Your task to perform on an android device: turn on notifications settings in the gmail app Image 0: 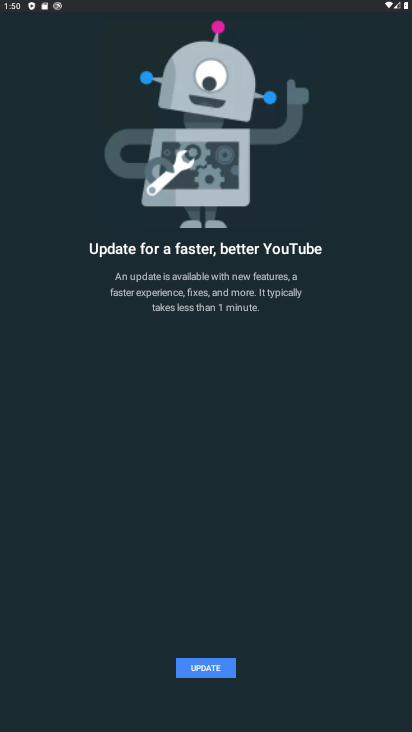
Step 0: press home button
Your task to perform on an android device: turn on notifications settings in the gmail app Image 1: 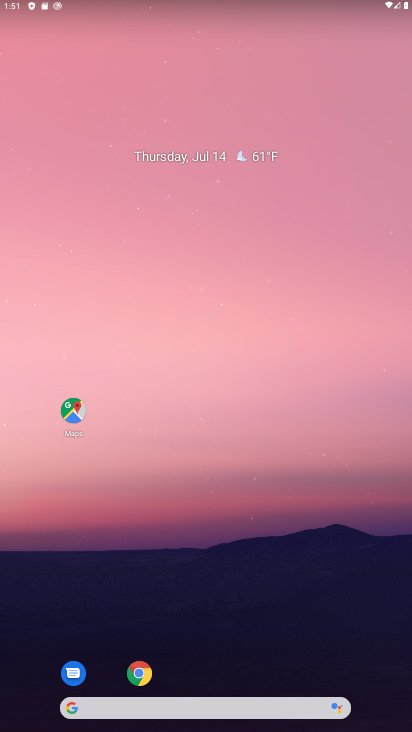
Step 1: drag from (160, 682) to (215, 92)
Your task to perform on an android device: turn on notifications settings in the gmail app Image 2: 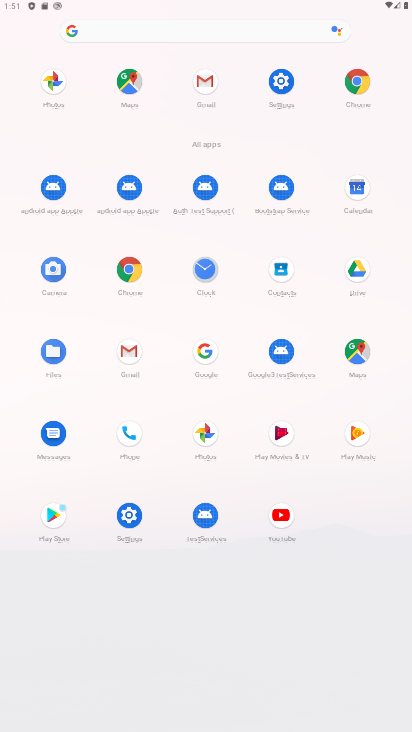
Step 2: click (267, 84)
Your task to perform on an android device: turn on notifications settings in the gmail app Image 3: 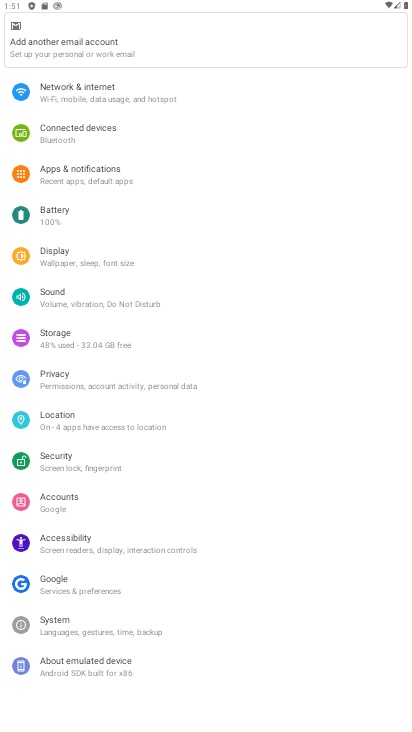
Step 3: click (35, 182)
Your task to perform on an android device: turn on notifications settings in the gmail app Image 4: 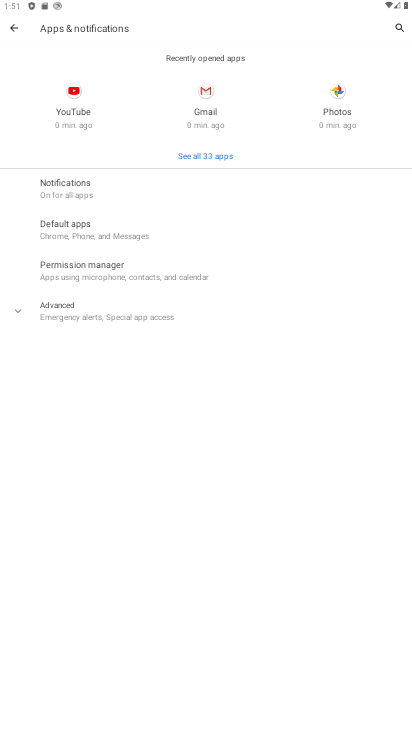
Step 4: click (209, 98)
Your task to perform on an android device: turn on notifications settings in the gmail app Image 5: 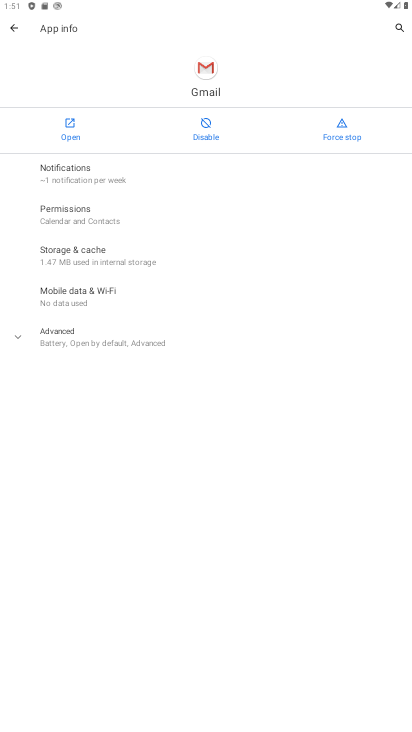
Step 5: click (118, 170)
Your task to perform on an android device: turn on notifications settings in the gmail app Image 6: 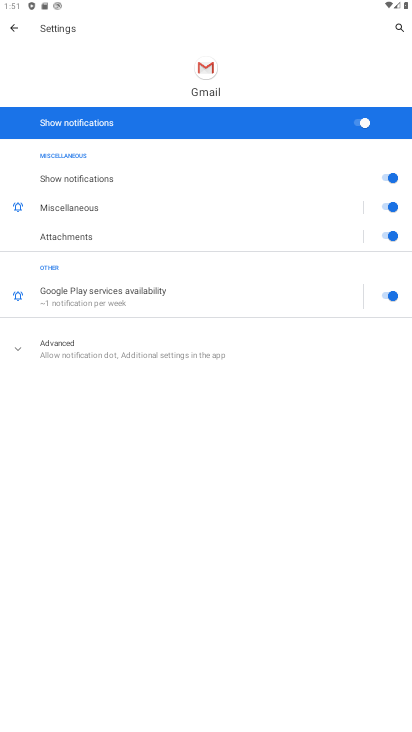
Step 6: task complete